Your task to perform on an android device: Open Google Chrome and open the bookmarks view Image 0: 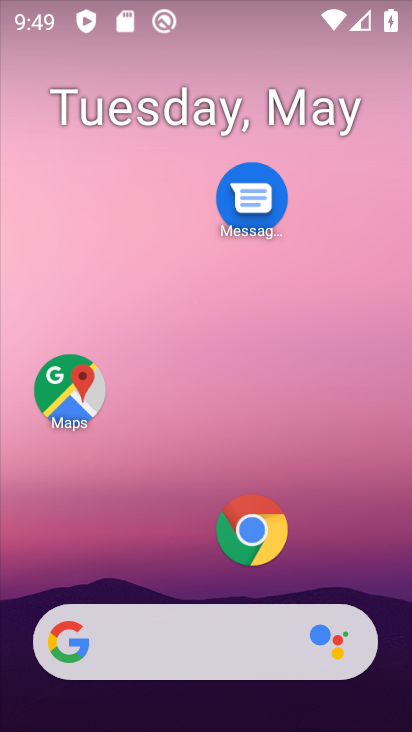
Step 0: click (256, 537)
Your task to perform on an android device: Open Google Chrome and open the bookmarks view Image 1: 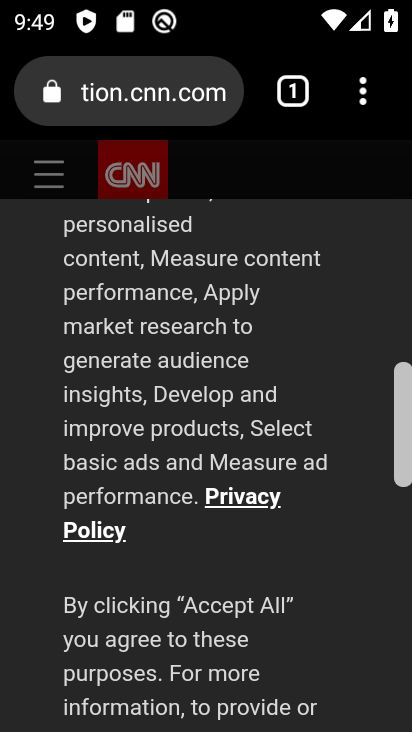
Step 1: click (363, 104)
Your task to perform on an android device: Open Google Chrome and open the bookmarks view Image 2: 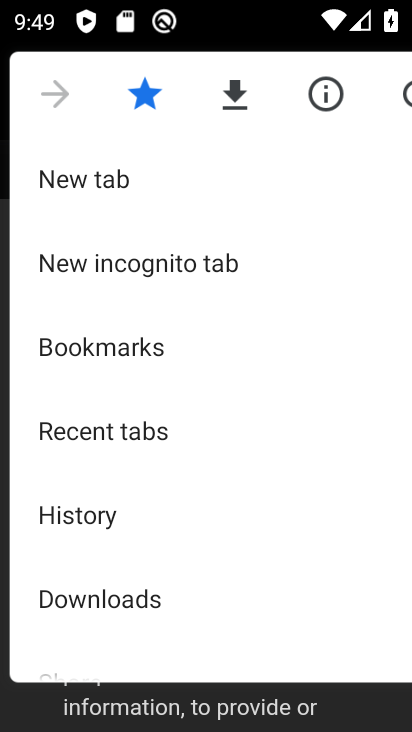
Step 2: click (132, 343)
Your task to perform on an android device: Open Google Chrome and open the bookmarks view Image 3: 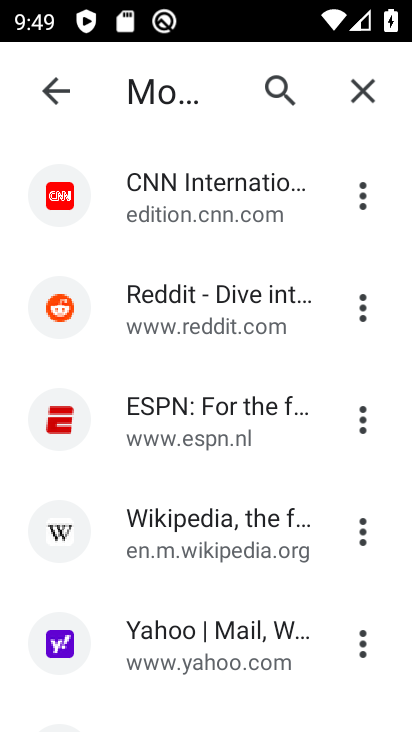
Step 3: task complete